Your task to perform on an android device: change timer sound Image 0: 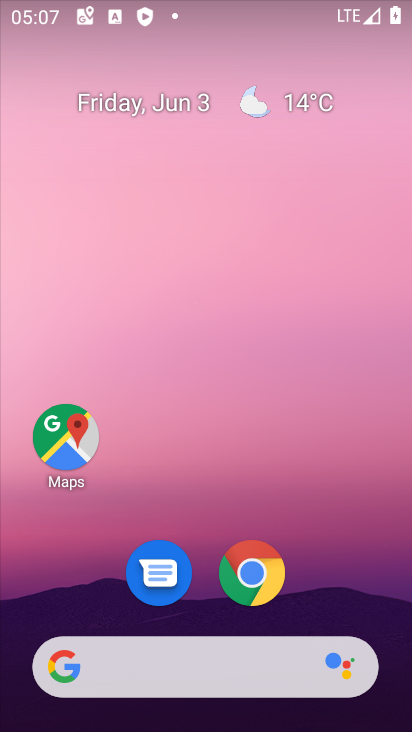
Step 0: drag from (326, 586) to (315, 44)
Your task to perform on an android device: change timer sound Image 1: 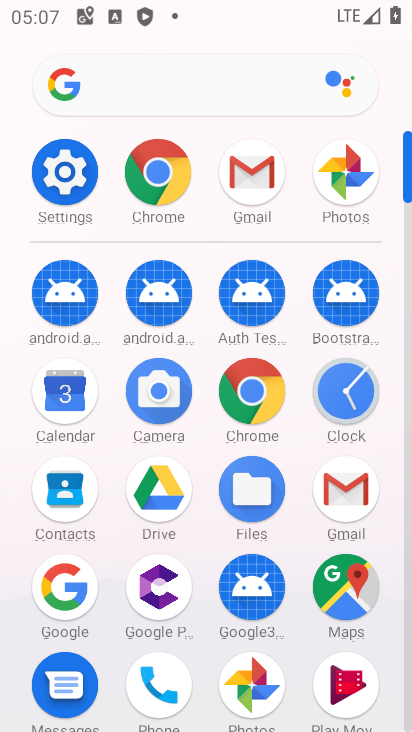
Step 1: click (353, 399)
Your task to perform on an android device: change timer sound Image 2: 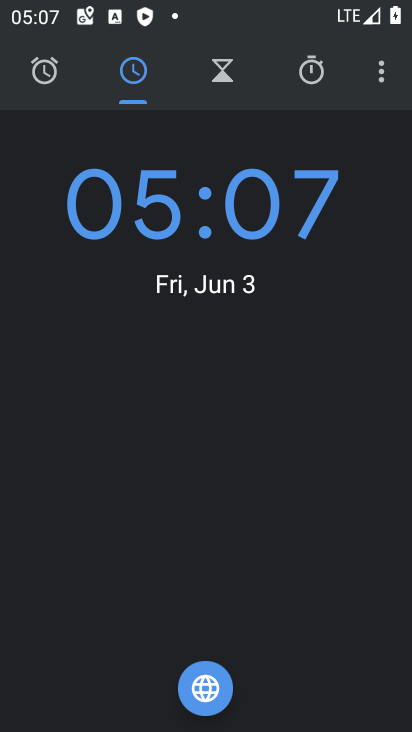
Step 2: click (38, 68)
Your task to perform on an android device: change timer sound Image 3: 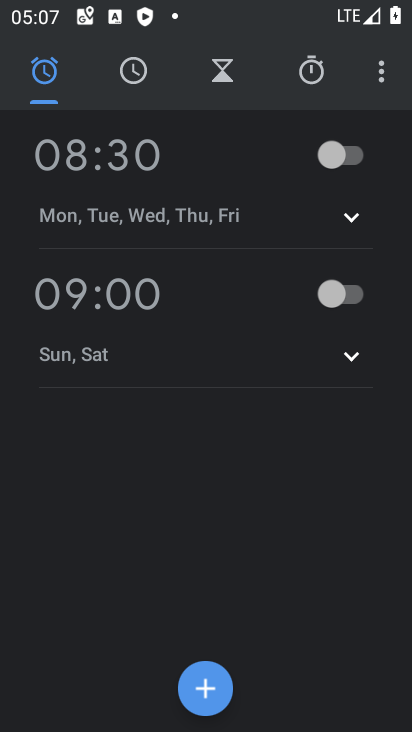
Step 3: click (151, 84)
Your task to perform on an android device: change timer sound Image 4: 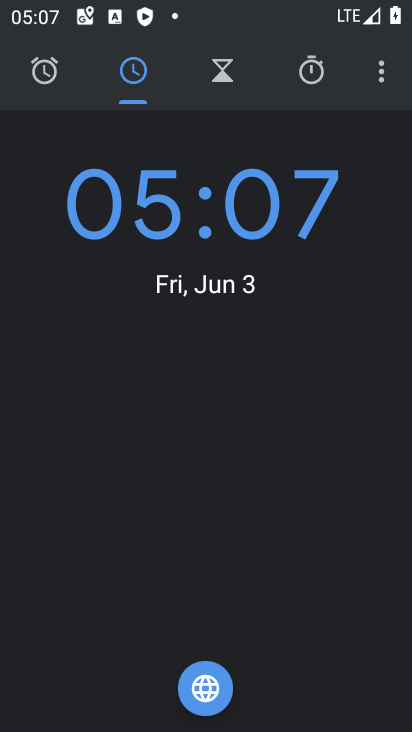
Step 4: click (226, 88)
Your task to perform on an android device: change timer sound Image 5: 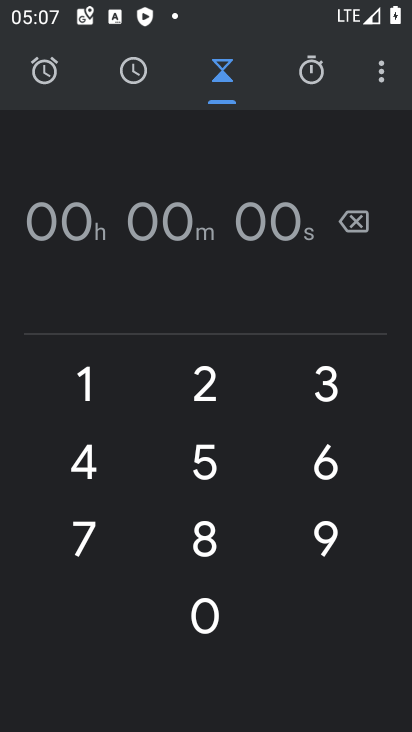
Step 5: click (322, 102)
Your task to perform on an android device: change timer sound Image 6: 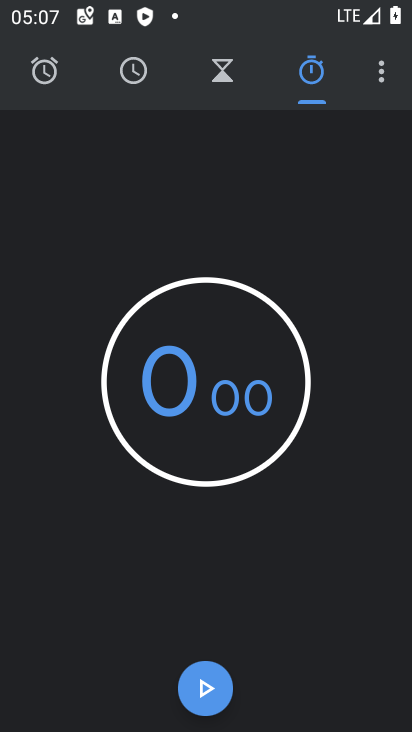
Step 6: click (384, 85)
Your task to perform on an android device: change timer sound Image 7: 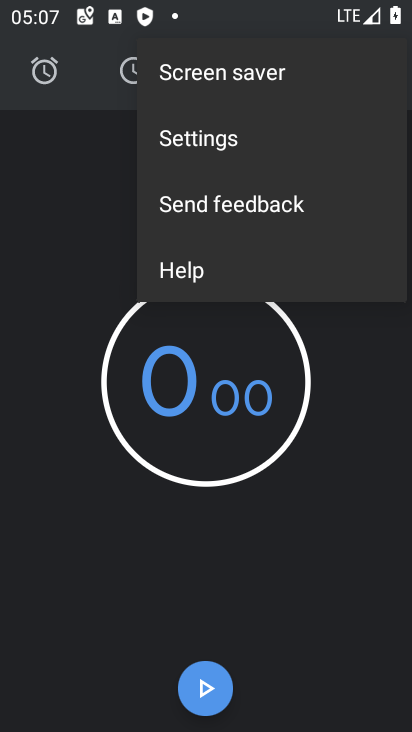
Step 7: click (247, 136)
Your task to perform on an android device: change timer sound Image 8: 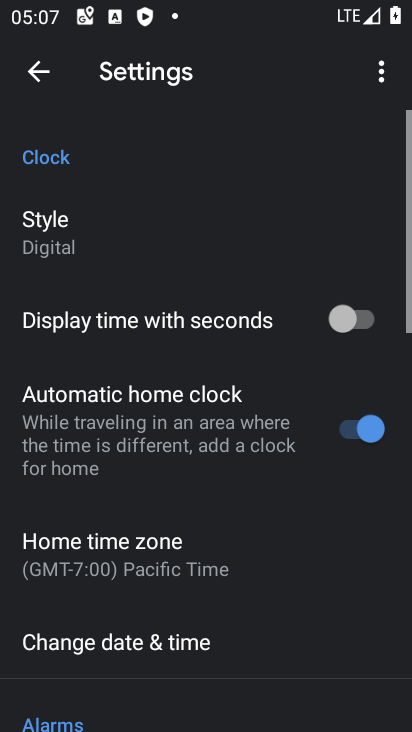
Step 8: drag from (304, 635) to (262, 220)
Your task to perform on an android device: change timer sound Image 9: 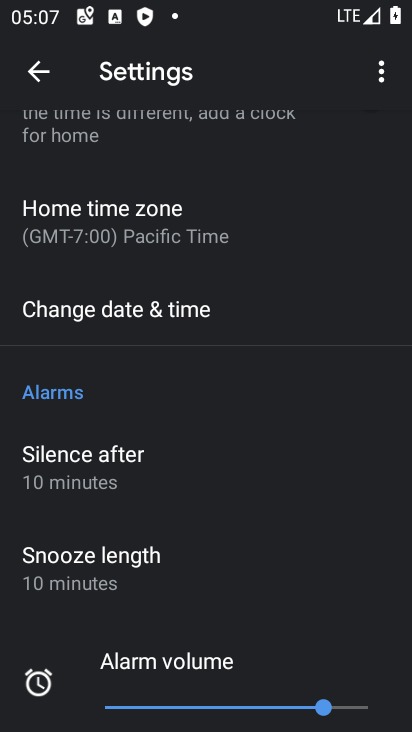
Step 9: drag from (248, 553) to (266, 334)
Your task to perform on an android device: change timer sound Image 10: 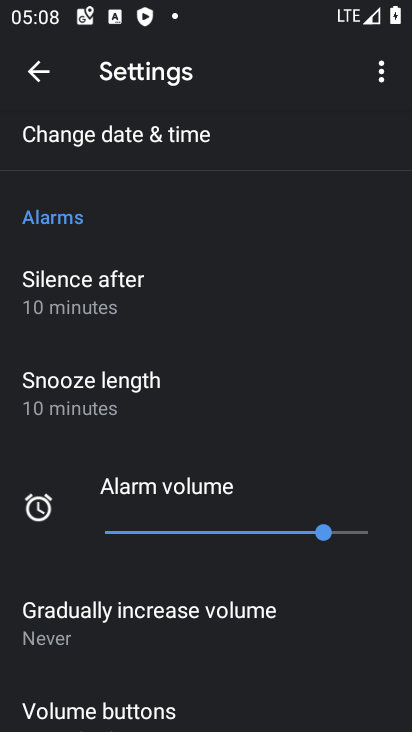
Step 10: drag from (259, 679) to (261, 368)
Your task to perform on an android device: change timer sound Image 11: 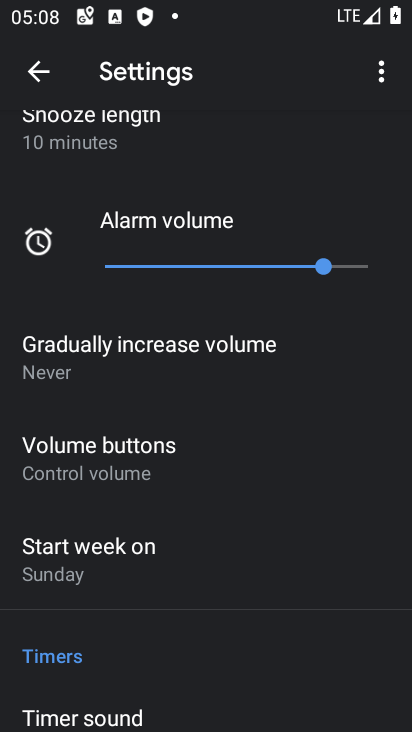
Step 11: drag from (225, 669) to (219, 388)
Your task to perform on an android device: change timer sound Image 12: 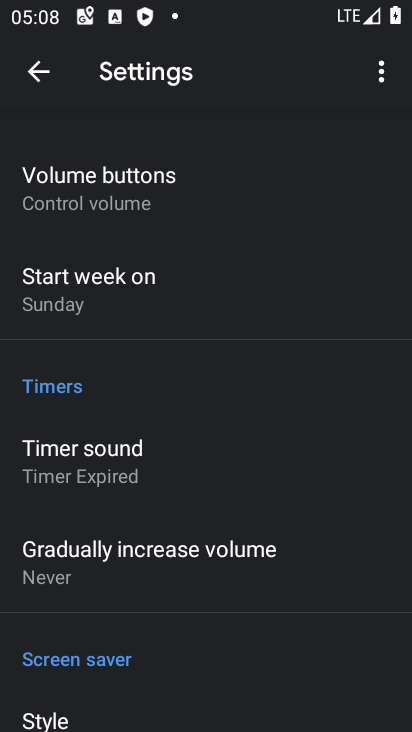
Step 12: click (173, 465)
Your task to perform on an android device: change timer sound Image 13: 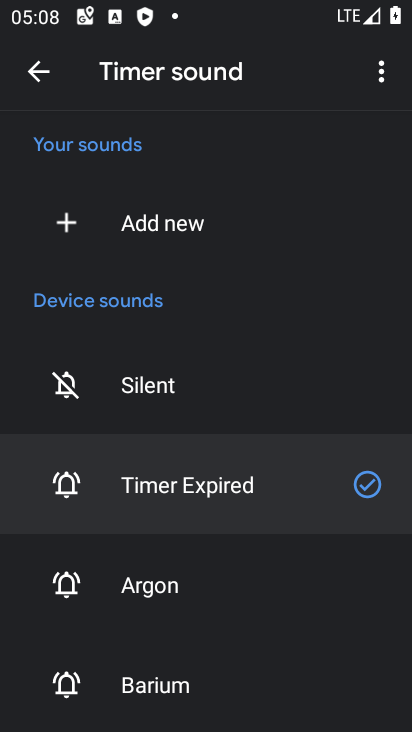
Step 13: click (179, 591)
Your task to perform on an android device: change timer sound Image 14: 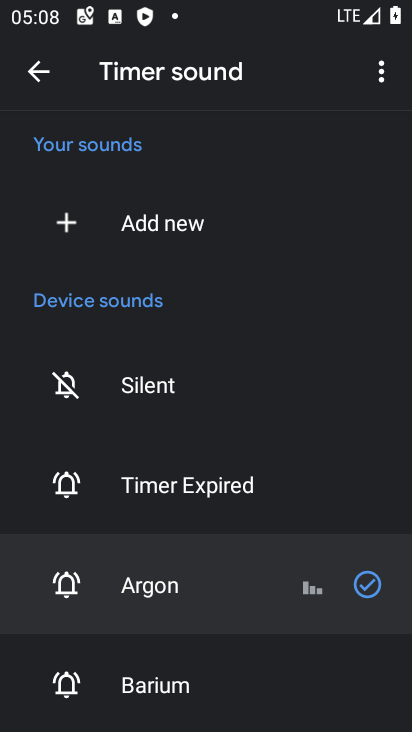
Step 14: click (381, 81)
Your task to perform on an android device: change timer sound Image 15: 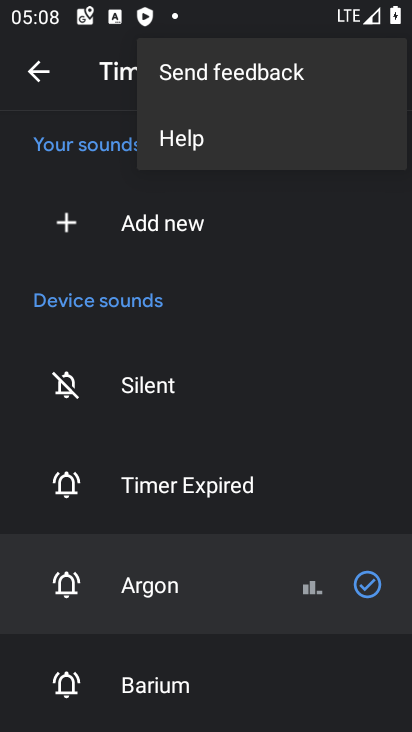
Step 15: click (298, 251)
Your task to perform on an android device: change timer sound Image 16: 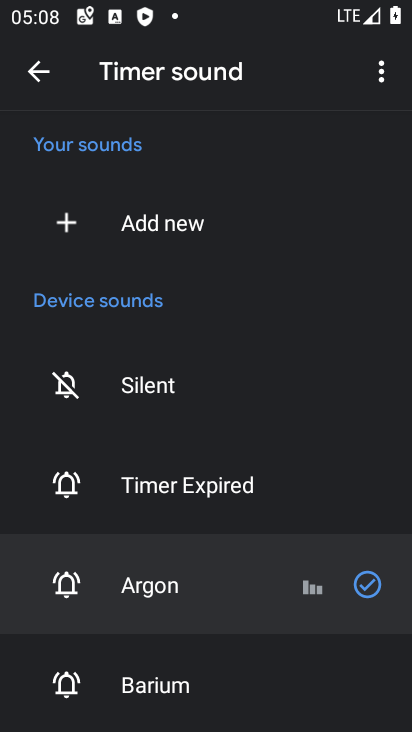
Step 16: task complete